Your task to perform on an android device: read, delete, or share a saved page in the chrome app Image 0: 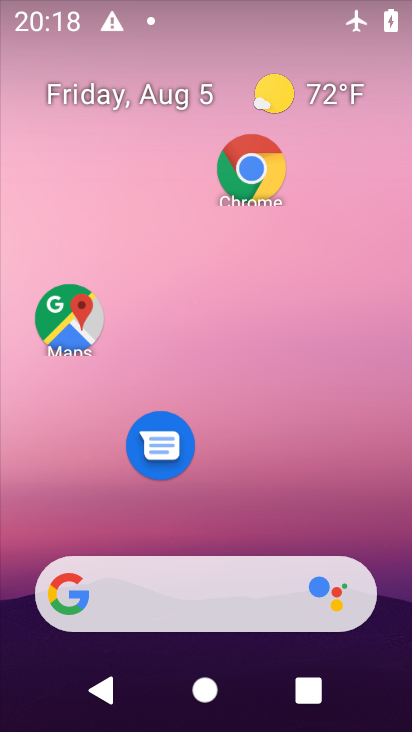
Step 0: click (257, 179)
Your task to perform on an android device: read, delete, or share a saved page in the chrome app Image 1: 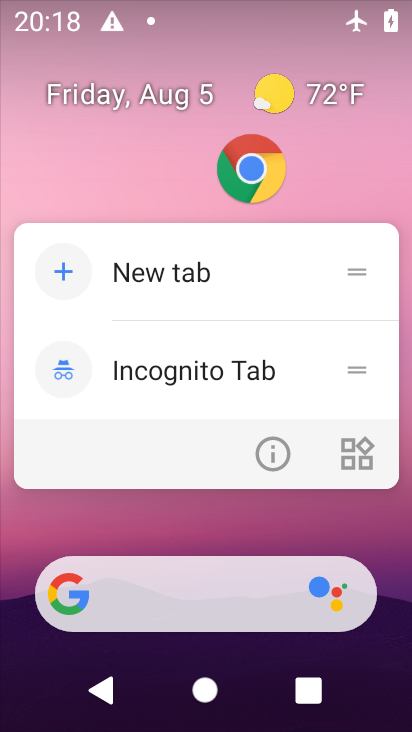
Step 1: click (257, 179)
Your task to perform on an android device: read, delete, or share a saved page in the chrome app Image 2: 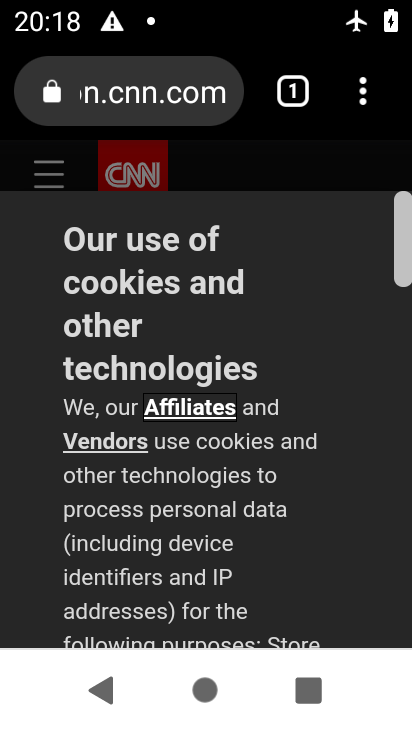
Step 2: drag from (365, 106) to (174, 260)
Your task to perform on an android device: read, delete, or share a saved page in the chrome app Image 3: 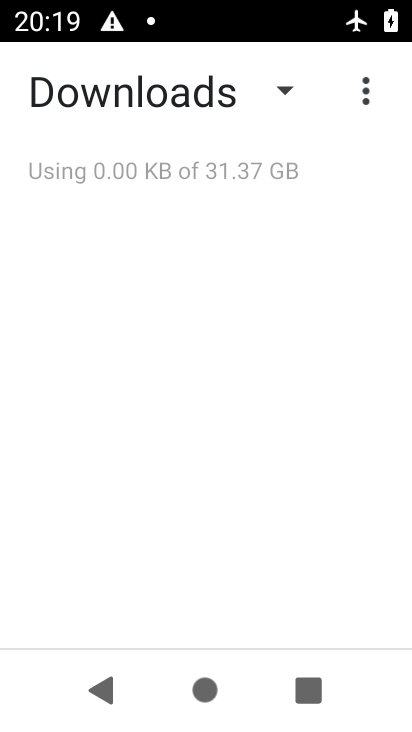
Step 3: click (276, 98)
Your task to perform on an android device: read, delete, or share a saved page in the chrome app Image 4: 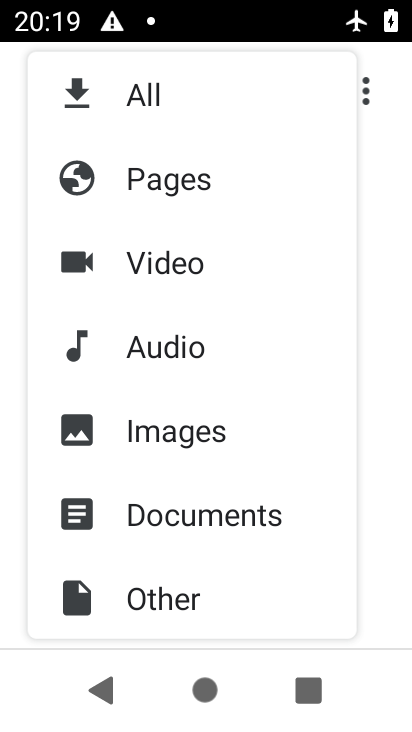
Step 4: task complete